Your task to perform on an android device: Open Wikipedia Image 0: 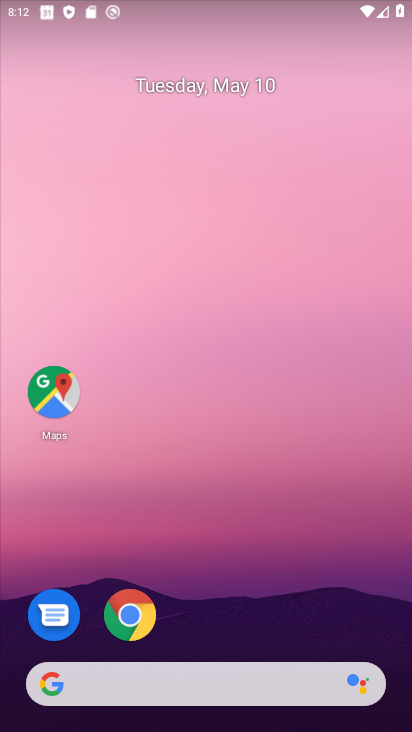
Step 0: click (213, 200)
Your task to perform on an android device: Open Wikipedia Image 1: 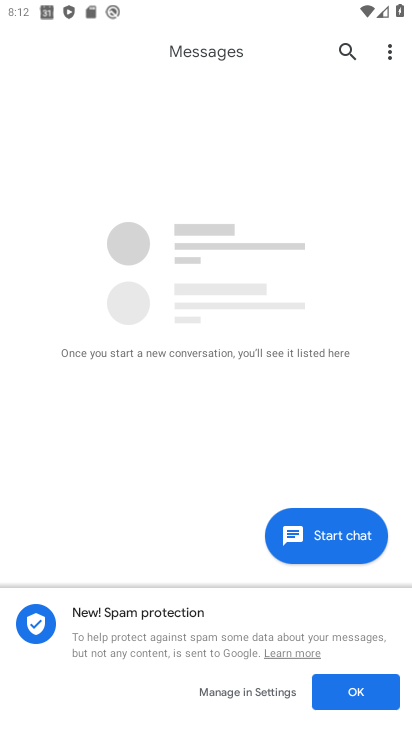
Step 1: drag from (190, 588) to (172, 277)
Your task to perform on an android device: Open Wikipedia Image 2: 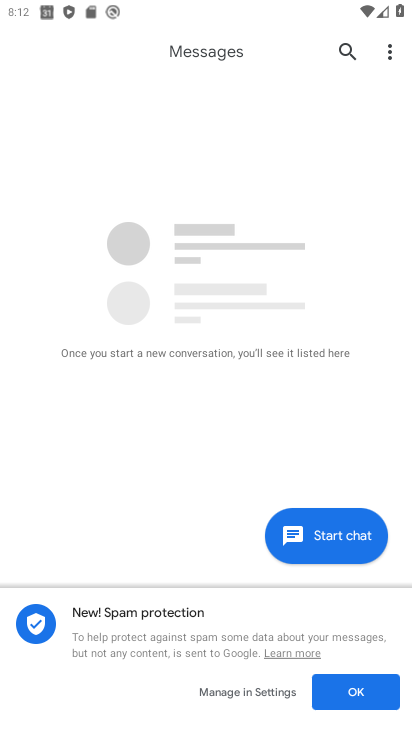
Step 2: press home button
Your task to perform on an android device: Open Wikipedia Image 3: 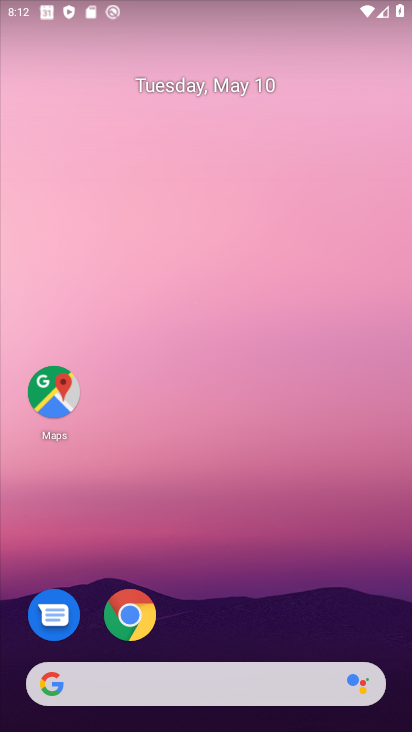
Step 3: drag from (207, 621) to (242, 134)
Your task to perform on an android device: Open Wikipedia Image 4: 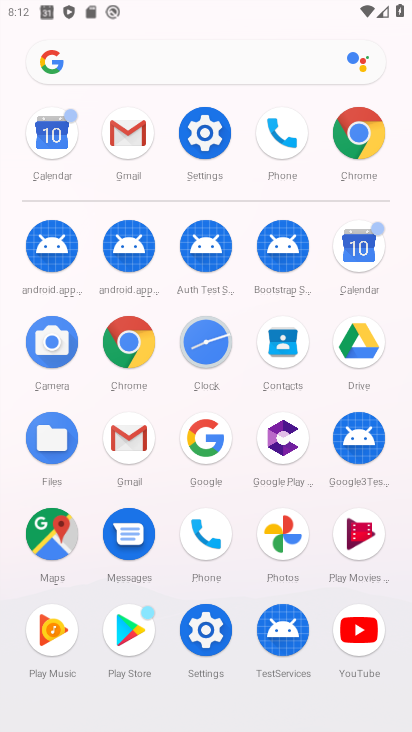
Step 4: click (360, 122)
Your task to perform on an android device: Open Wikipedia Image 5: 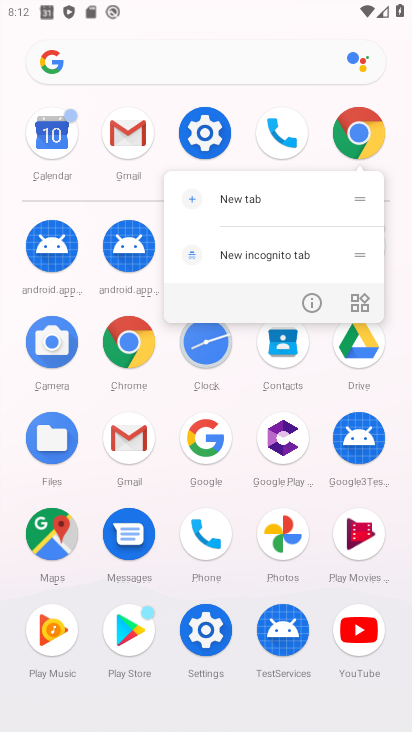
Step 5: click (232, 180)
Your task to perform on an android device: Open Wikipedia Image 6: 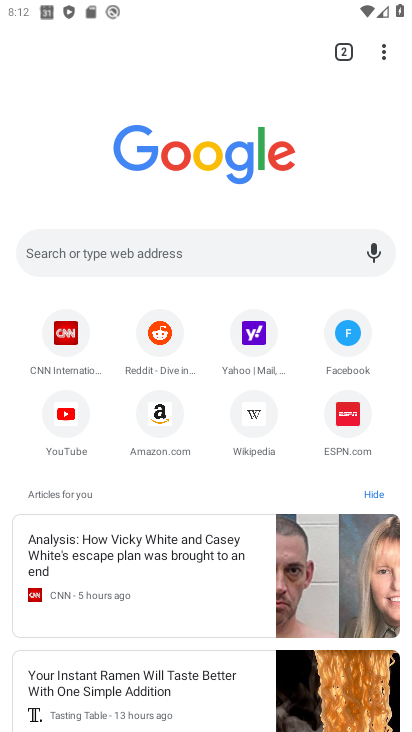
Step 6: click (242, 407)
Your task to perform on an android device: Open Wikipedia Image 7: 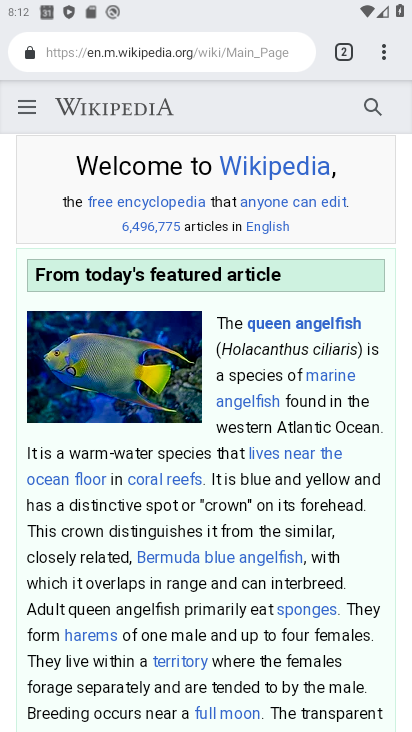
Step 7: task complete